Your task to perform on an android device: change the clock display to analog Image 0: 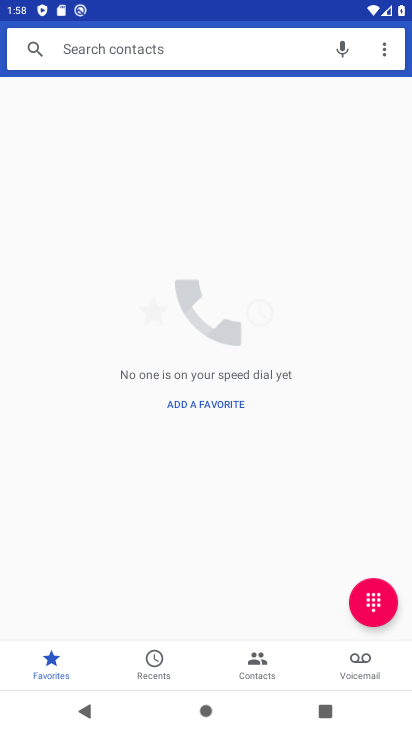
Step 0: press home button
Your task to perform on an android device: change the clock display to analog Image 1: 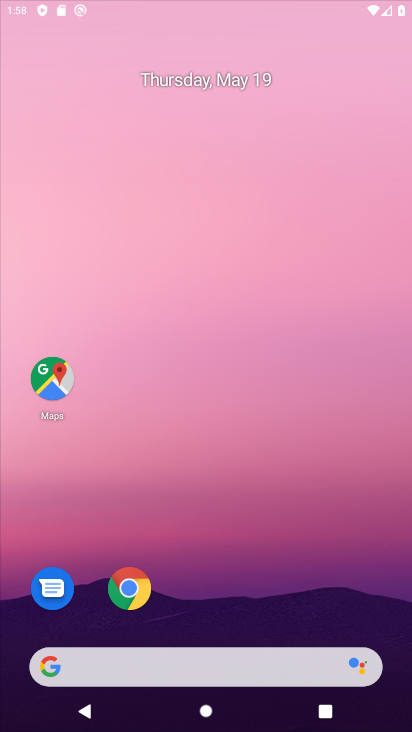
Step 1: drag from (217, 557) to (211, 7)
Your task to perform on an android device: change the clock display to analog Image 2: 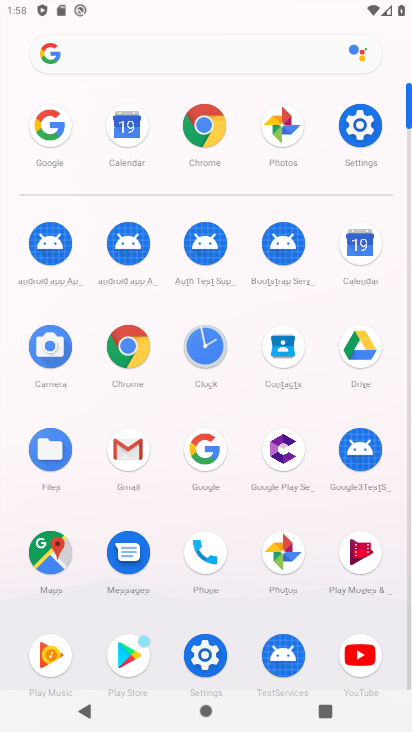
Step 2: click (197, 351)
Your task to perform on an android device: change the clock display to analog Image 3: 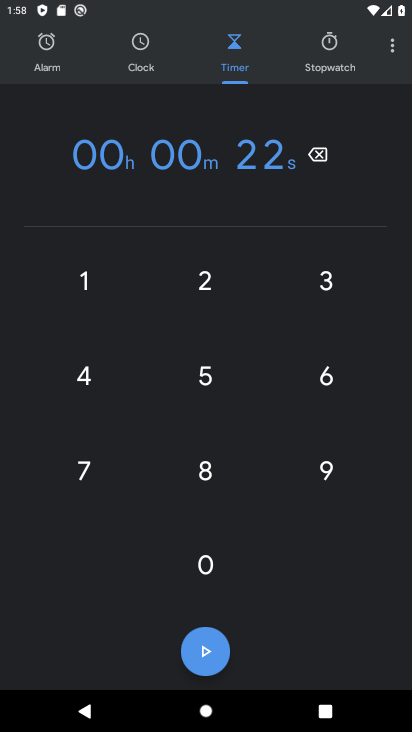
Step 3: click (386, 46)
Your task to perform on an android device: change the clock display to analog Image 4: 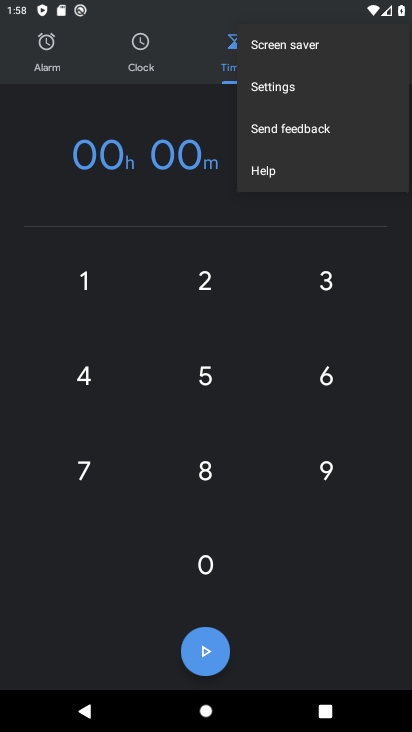
Step 4: click (292, 84)
Your task to perform on an android device: change the clock display to analog Image 5: 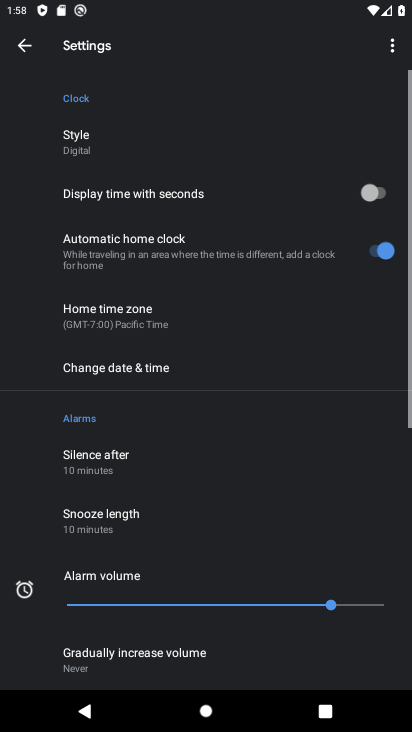
Step 5: click (140, 143)
Your task to perform on an android device: change the clock display to analog Image 6: 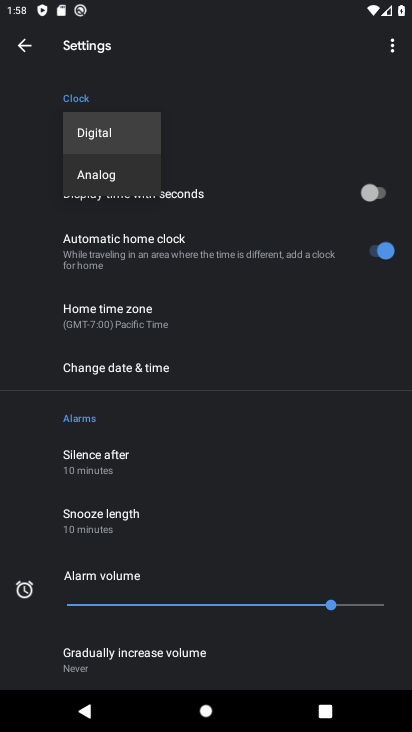
Step 6: click (111, 175)
Your task to perform on an android device: change the clock display to analog Image 7: 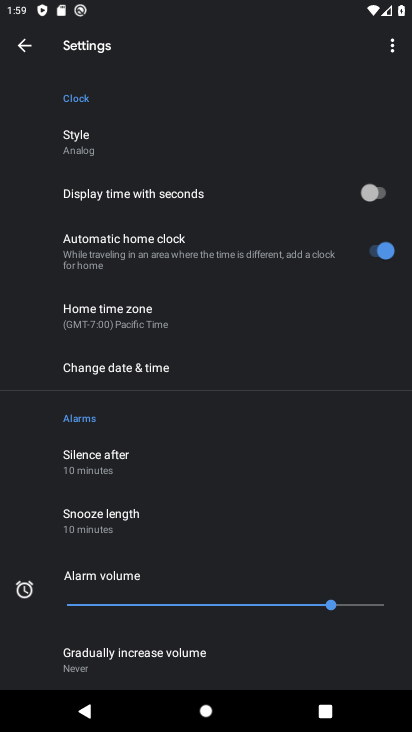
Step 7: task complete